Your task to perform on an android device: Go to Maps Image 0: 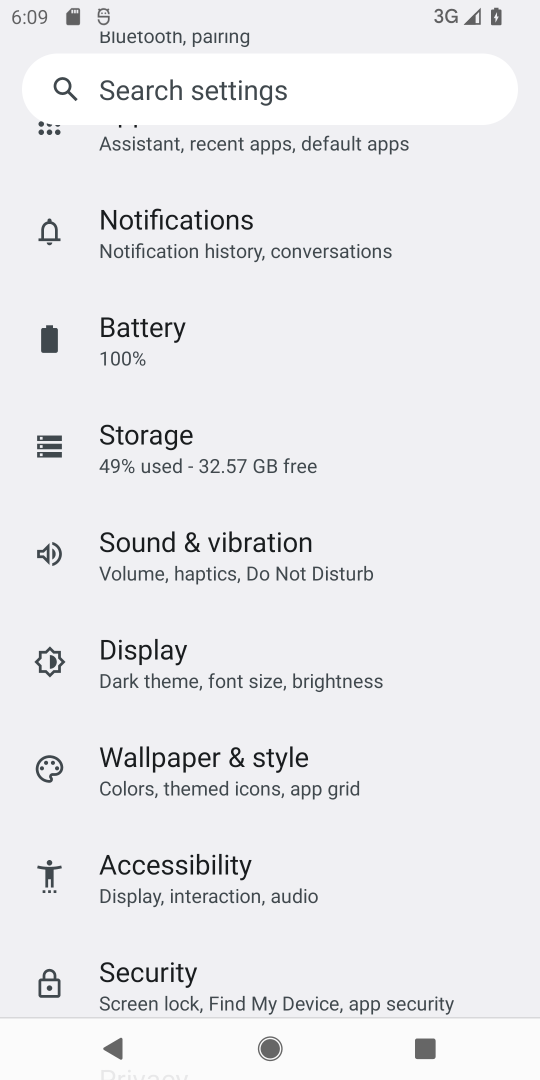
Step 0: press home button
Your task to perform on an android device: Go to Maps Image 1: 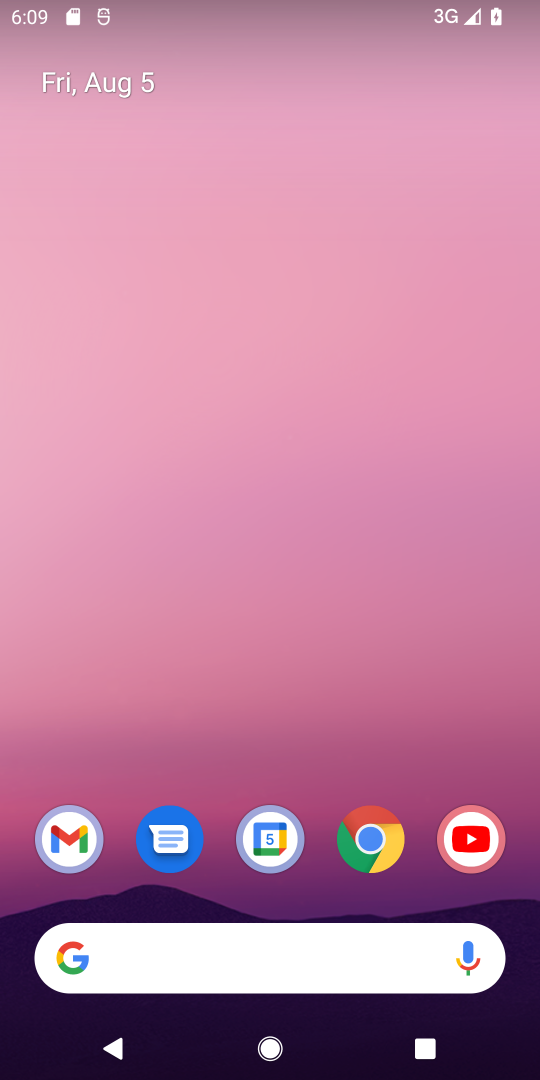
Step 1: drag from (305, 735) to (277, 73)
Your task to perform on an android device: Go to Maps Image 2: 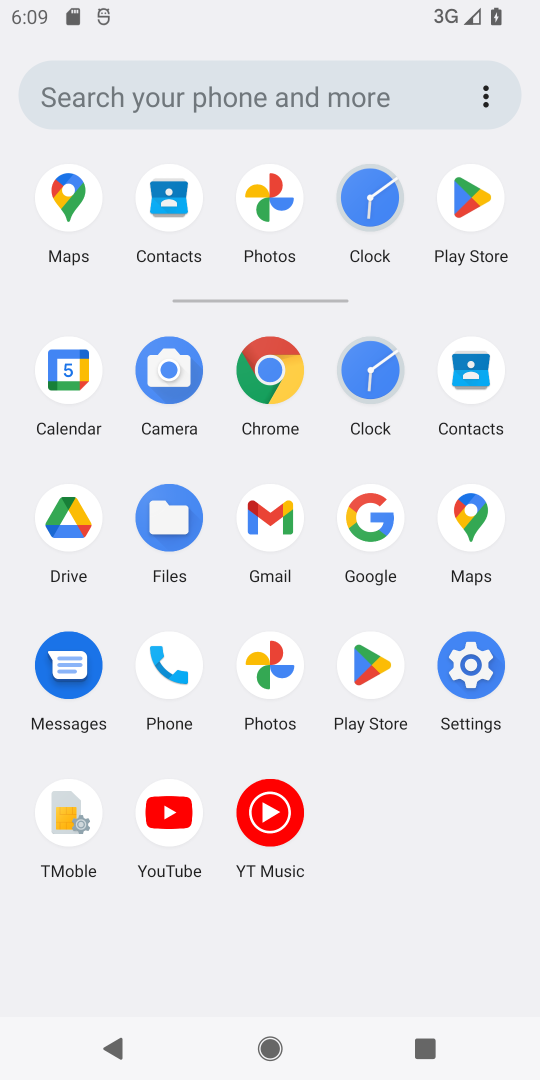
Step 2: click (457, 532)
Your task to perform on an android device: Go to Maps Image 3: 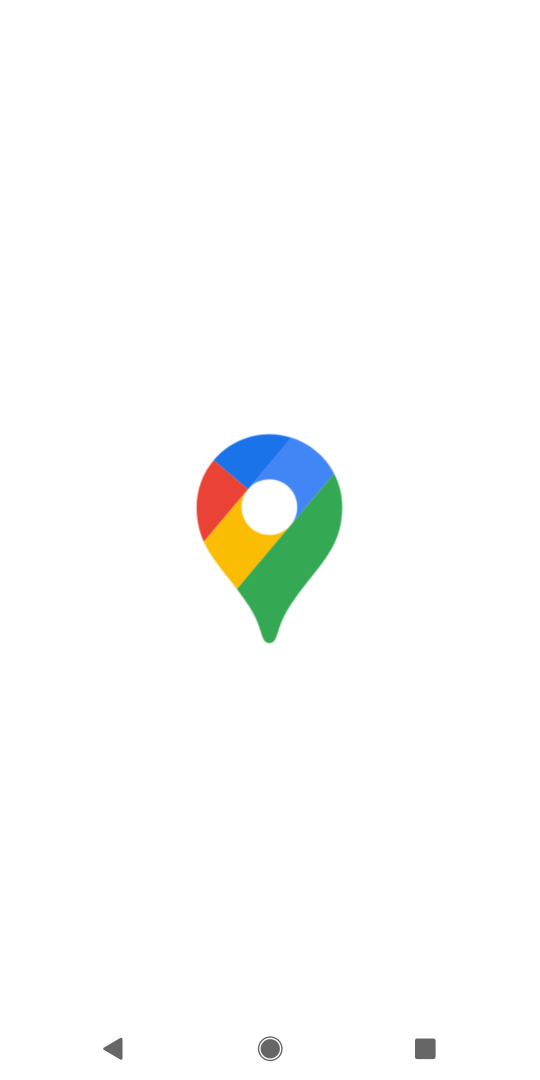
Step 3: task complete